Your task to perform on an android device: Toggle the flashlight Image 0: 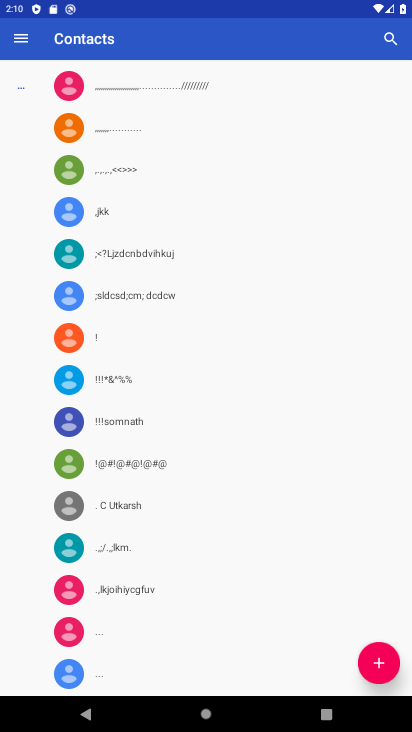
Step 0: press back button
Your task to perform on an android device: Toggle the flashlight Image 1: 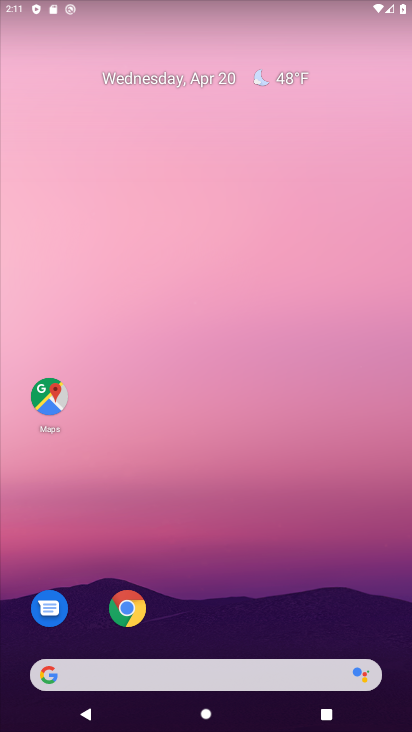
Step 1: drag from (303, 602) to (265, 41)
Your task to perform on an android device: Toggle the flashlight Image 2: 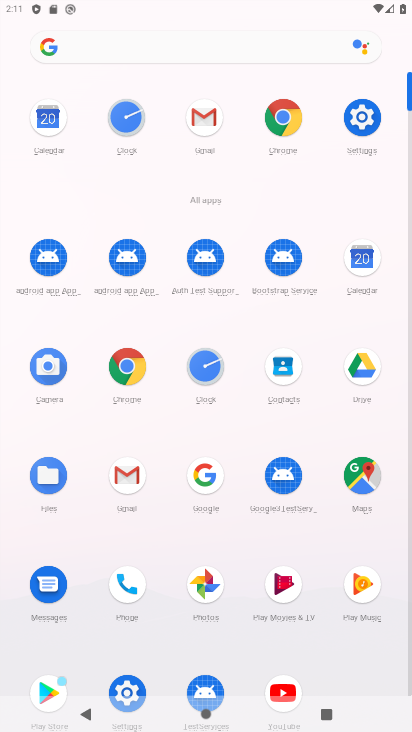
Step 2: click (358, 144)
Your task to perform on an android device: Toggle the flashlight Image 3: 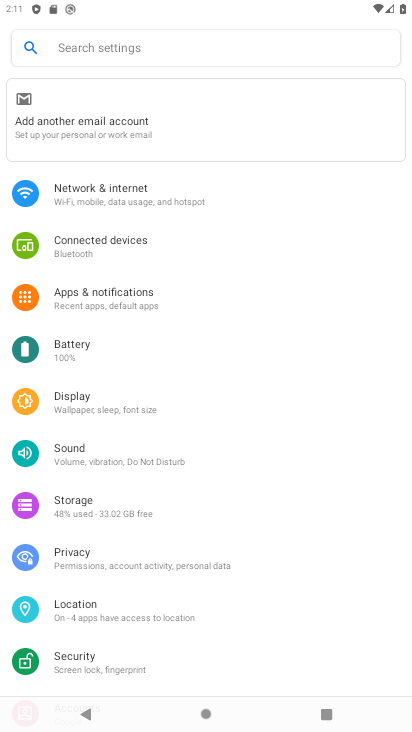
Step 3: click (200, 214)
Your task to perform on an android device: Toggle the flashlight Image 4: 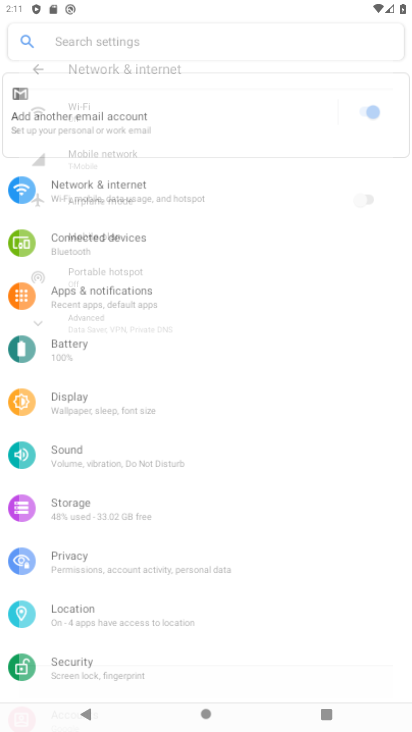
Step 4: task complete